Your task to perform on an android device: Open Amazon Image 0: 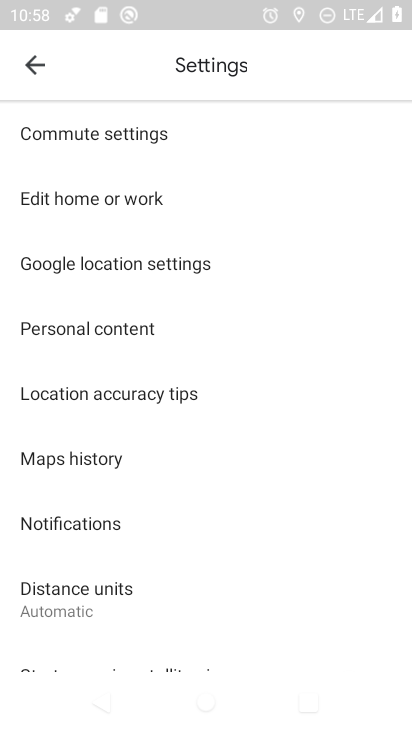
Step 0: press home button
Your task to perform on an android device: Open Amazon Image 1: 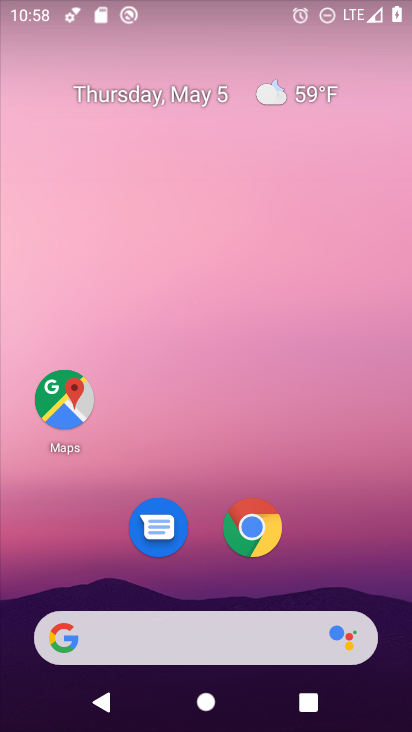
Step 1: click (160, 644)
Your task to perform on an android device: Open Amazon Image 2: 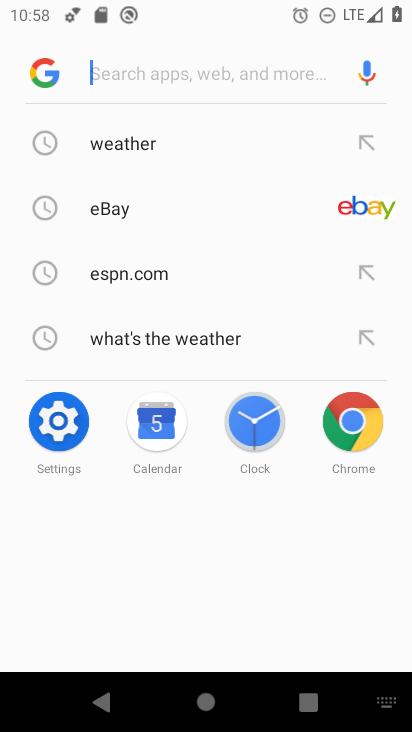
Step 2: type "amazon"
Your task to perform on an android device: Open Amazon Image 3: 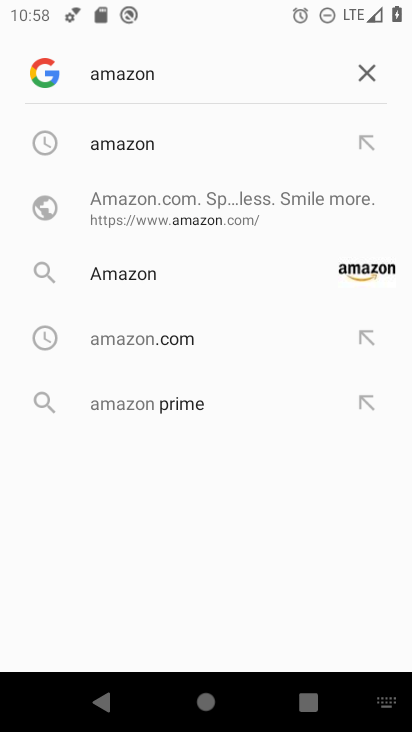
Step 3: click (248, 137)
Your task to perform on an android device: Open Amazon Image 4: 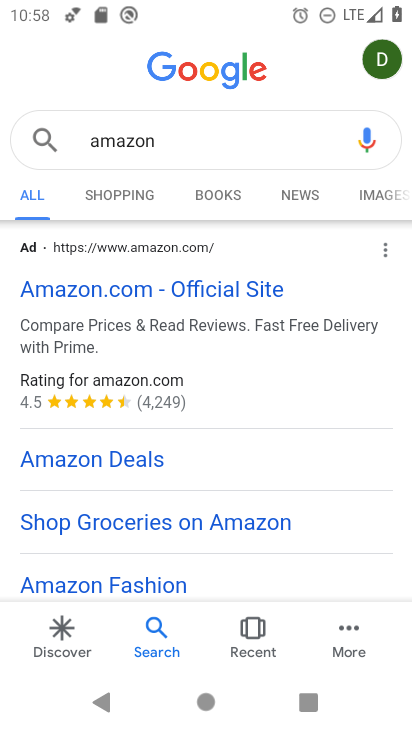
Step 4: task complete